Your task to perform on an android device: turn off notifications in google photos Image 0: 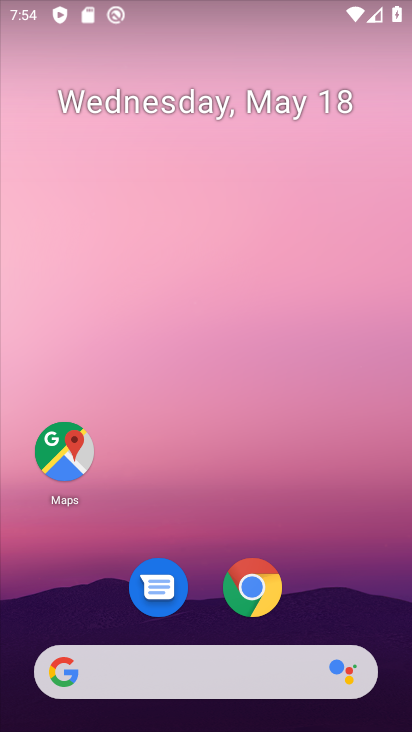
Step 0: drag from (271, 586) to (367, 3)
Your task to perform on an android device: turn off notifications in google photos Image 1: 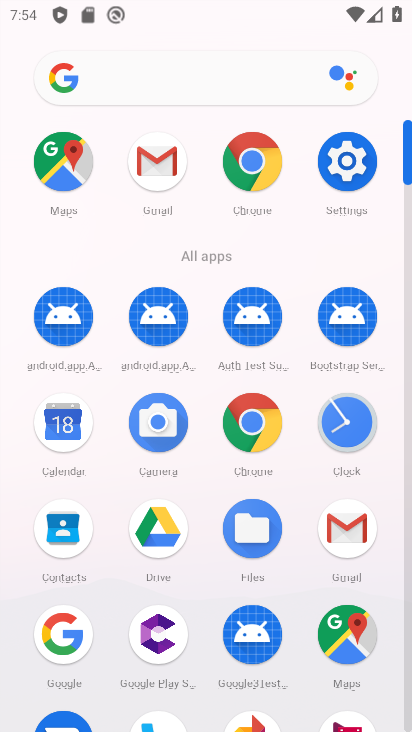
Step 1: drag from (181, 515) to (216, 213)
Your task to perform on an android device: turn off notifications in google photos Image 2: 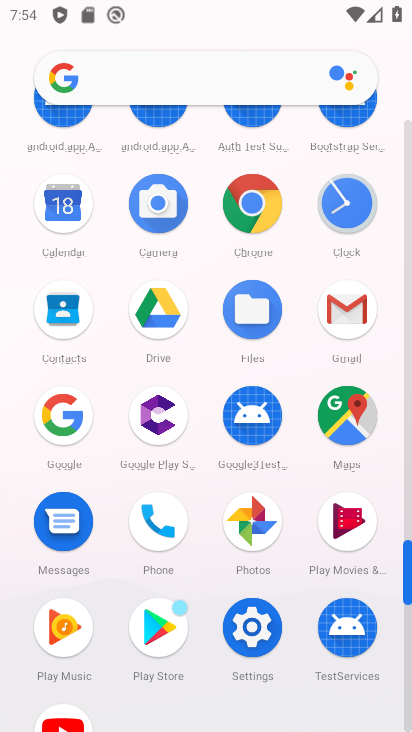
Step 2: click (263, 557)
Your task to perform on an android device: turn off notifications in google photos Image 3: 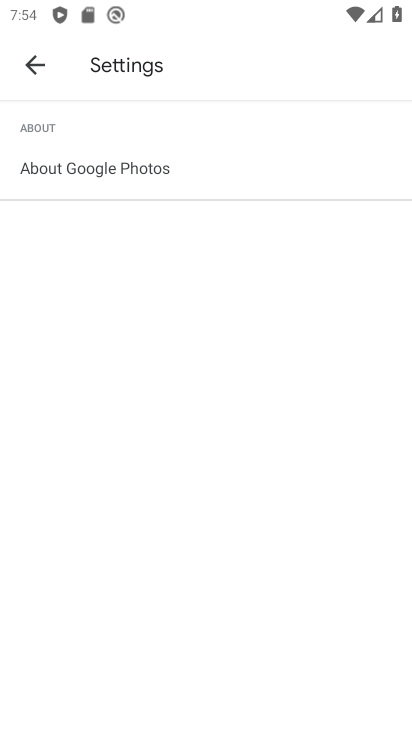
Step 3: click (37, 68)
Your task to perform on an android device: turn off notifications in google photos Image 4: 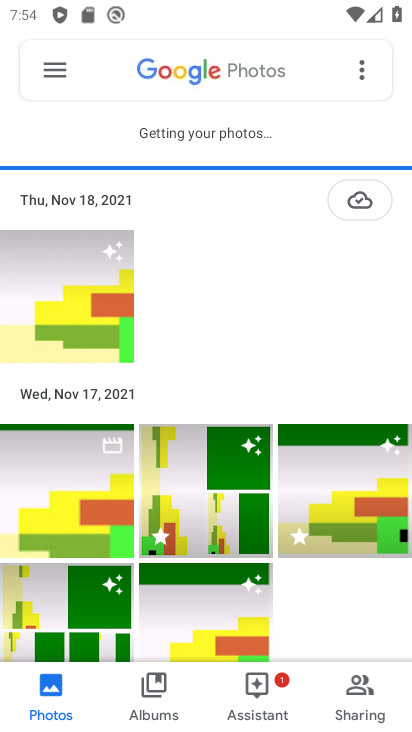
Step 4: click (50, 77)
Your task to perform on an android device: turn off notifications in google photos Image 5: 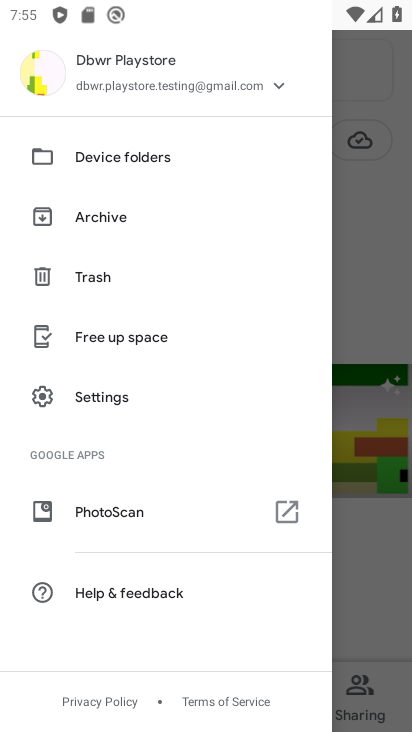
Step 5: click (115, 398)
Your task to perform on an android device: turn off notifications in google photos Image 6: 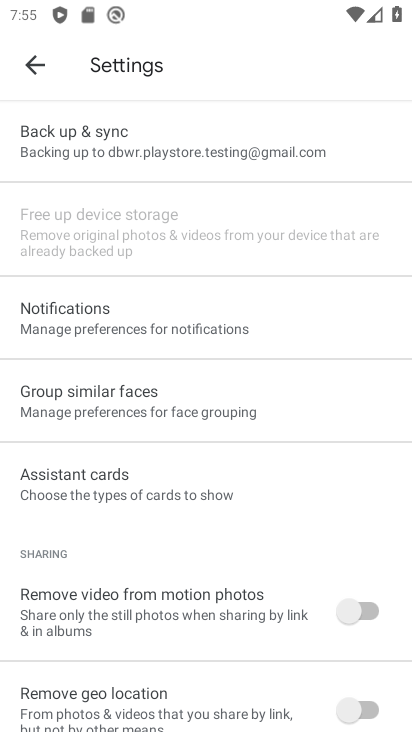
Step 6: click (164, 327)
Your task to perform on an android device: turn off notifications in google photos Image 7: 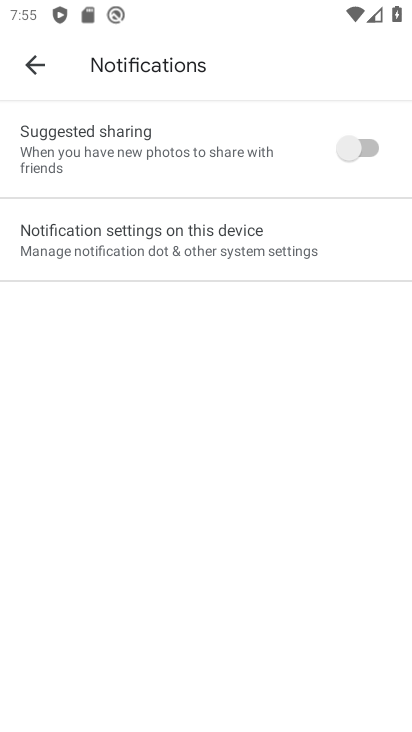
Step 7: click (197, 246)
Your task to perform on an android device: turn off notifications in google photos Image 8: 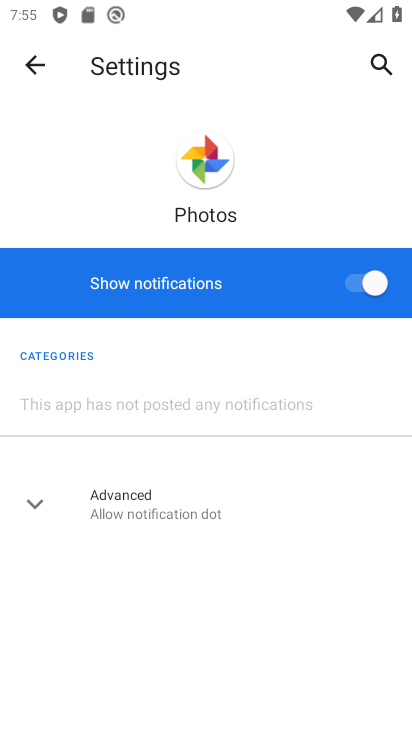
Step 8: click (349, 286)
Your task to perform on an android device: turn off notifications in google photos Image 9: 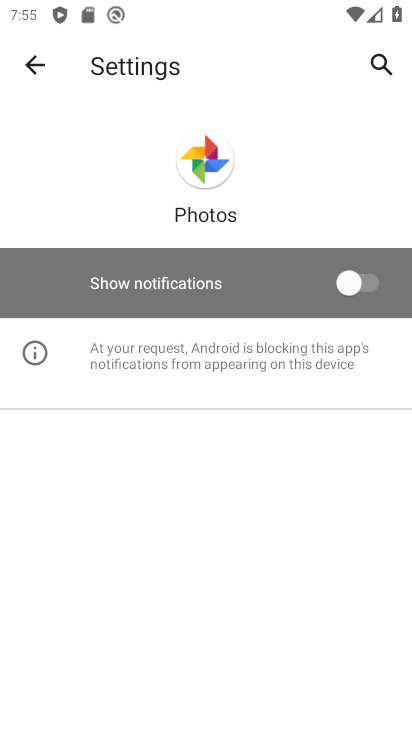
Step 9: task complete